Your task to perform on an android device: Open Youtube and go to "Your channel" Image 0: 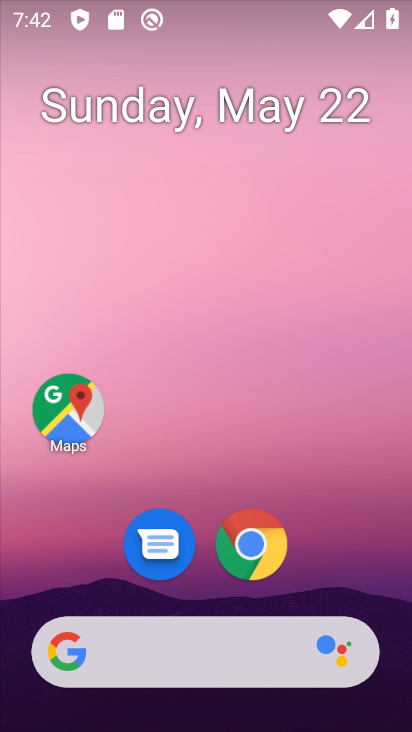
Step 0: drag from (335, 552) to (294, 1)
Your task to perform on an android device: Open Youtube and go to "Your channel" Image 1: 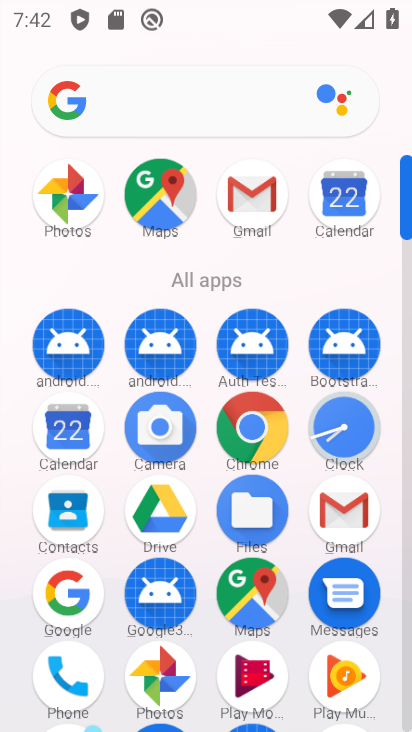
Step 1: drag from (297, 609) to (292, 249)
Your task to perform on an android device: Open Youtube and go to "Your channel" Image 2: 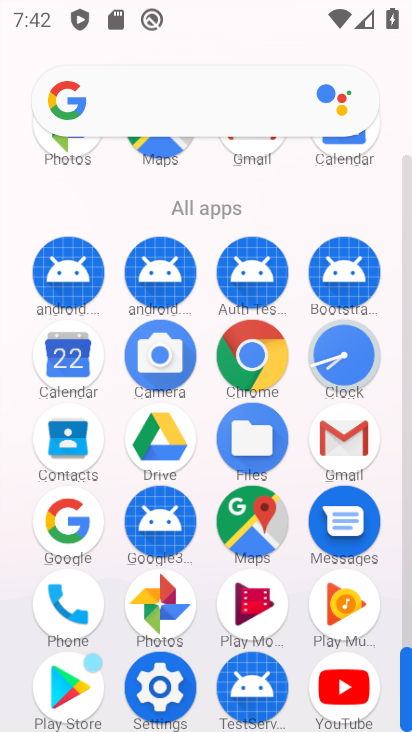
Step 2: click (350, 700)
Your task to perform on an android device: Open Youtube and go to "Your channel" Image 3: 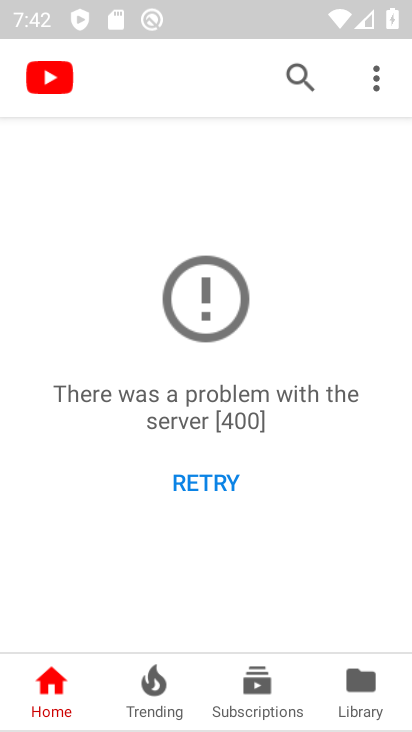
Step 3: task complete